Your task to perform on an android device: Turn on the flashlight Image 0: 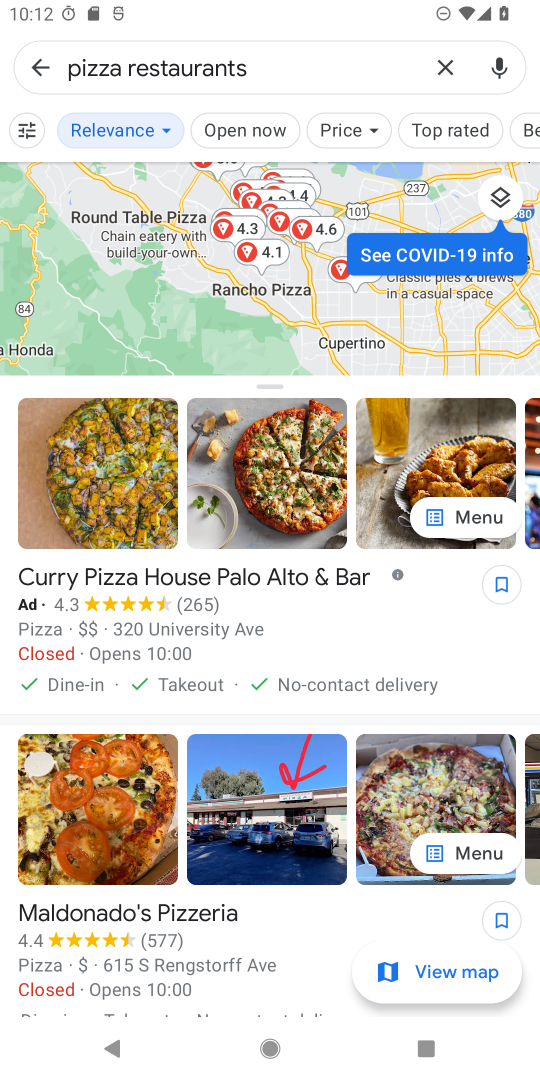
Step 0: press home button
Your task to perform on an android device: Turn on the flashlight Image 1: 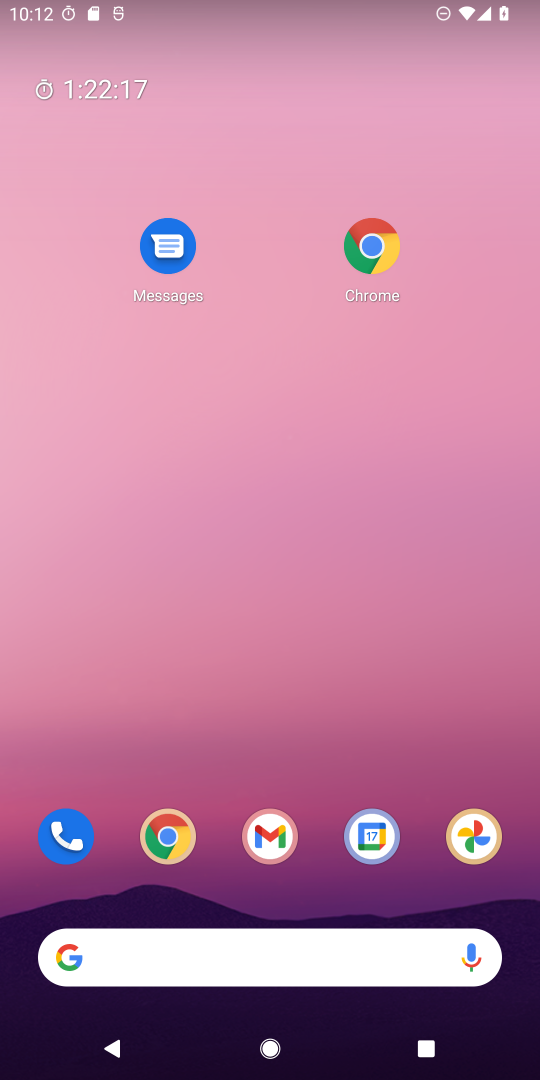
Step 1: drag from (254, 886) to (236, 175)
Your task to perform on an android device: Turn on the flashlight Image 2: 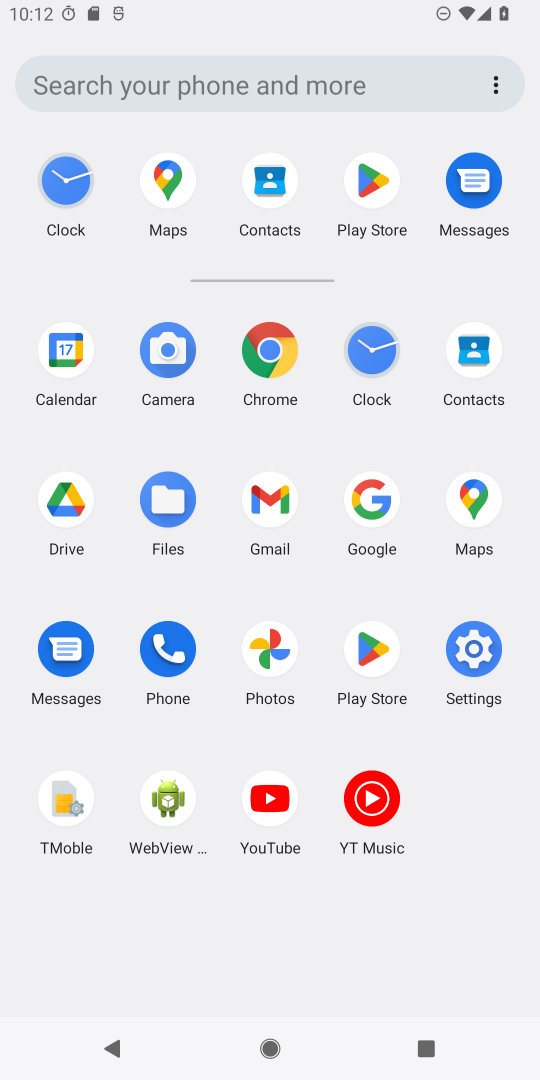
Step 2: click (467, 644)
Your task to perform on an android device: Turn on the flashlight Image 3: 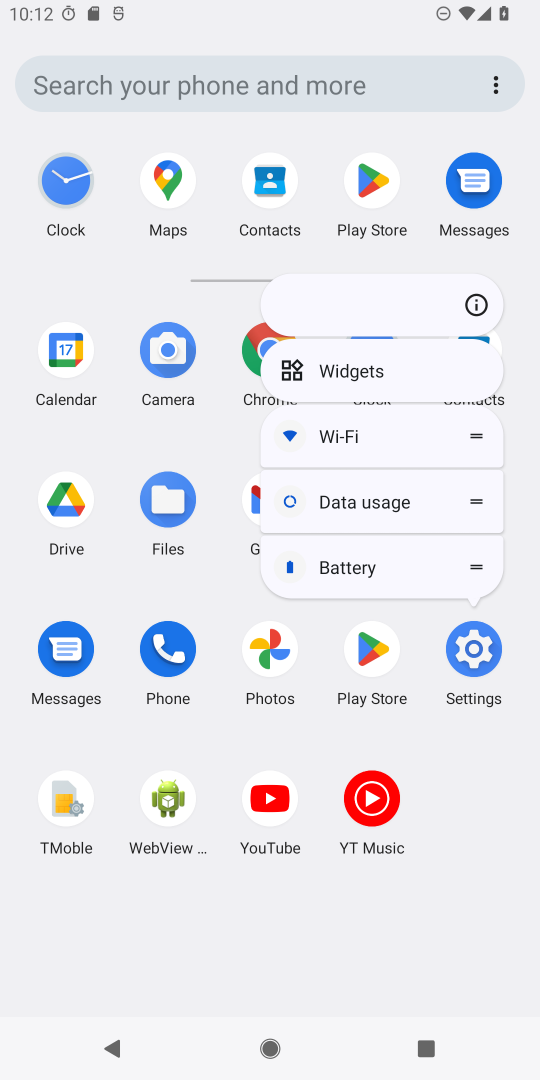
Step 3: click (467, 644)
Your task to perform on an android device: Turn on the flashlight Image 4: 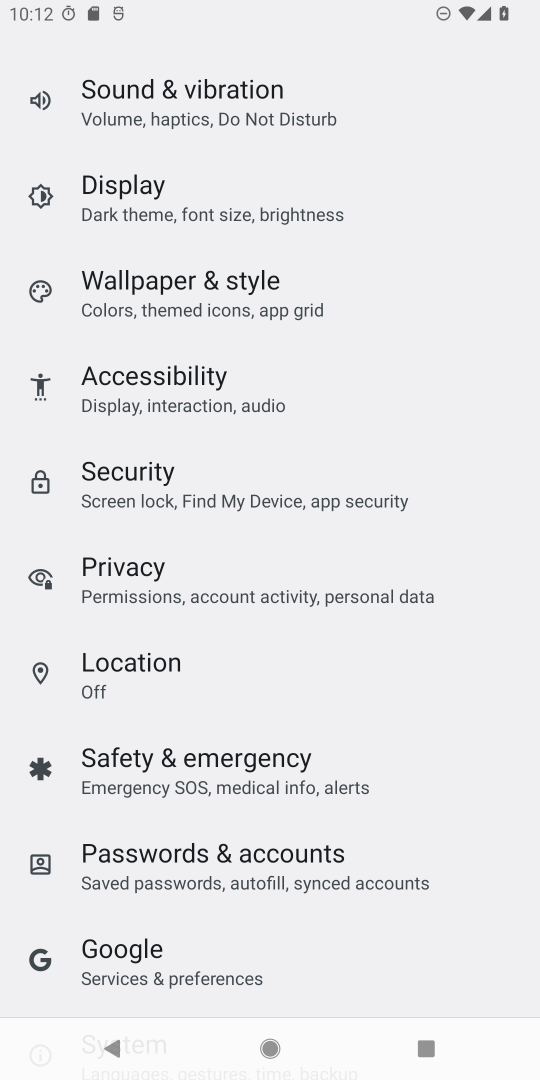
Step 4: task complete